Your task to perform on an android device: check battery use Image 0: 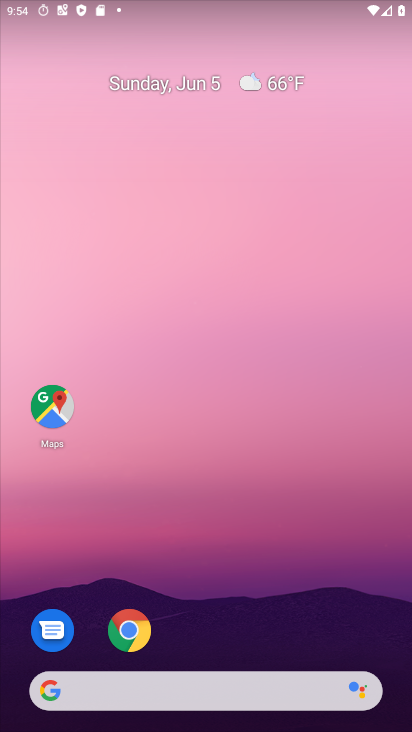
Step 0: drag from (237, 729) to (237, 11)
Your task to perform on an android device: check battery use Image 1: 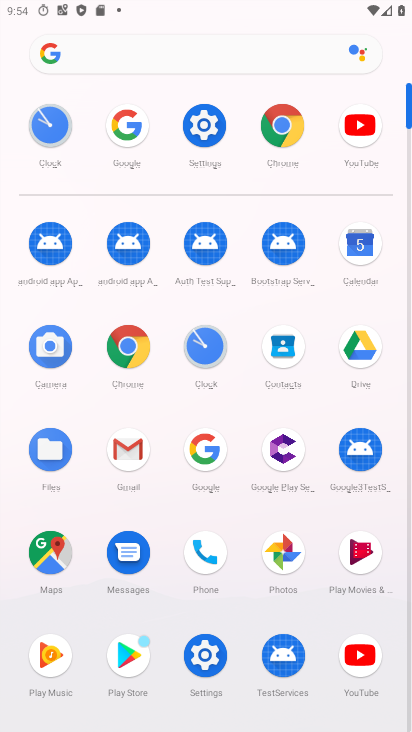
Step 1: click (195, 128)
Your task to perform on an android device: check battery use Image 2: 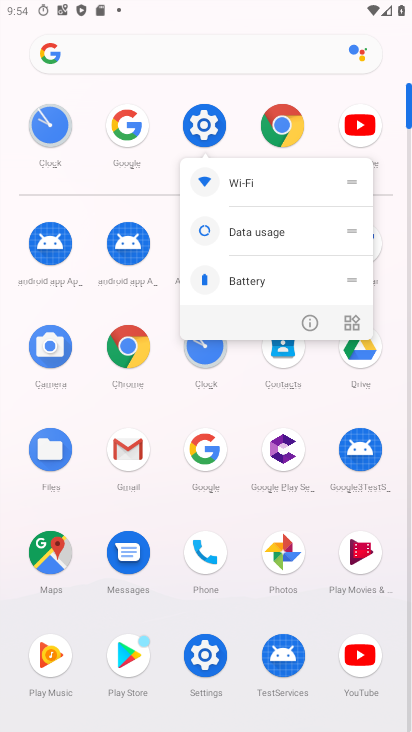
Step 2: click (197, 130)
Your task to perform on an android device: check battery use Image 3: 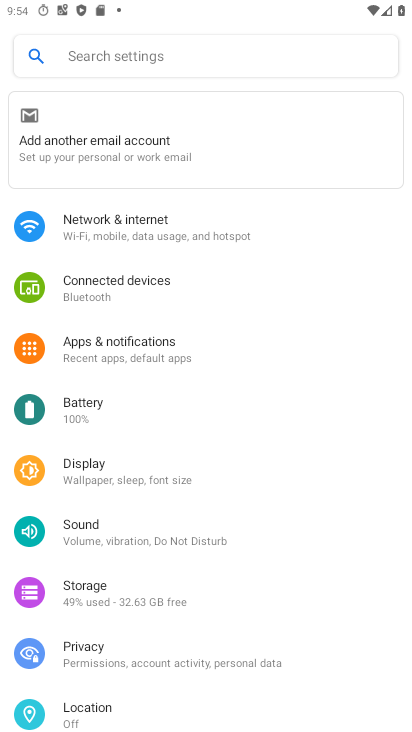
Step 3: click (80, 408)
Your task to perform on an android device: check battery use Image 4: 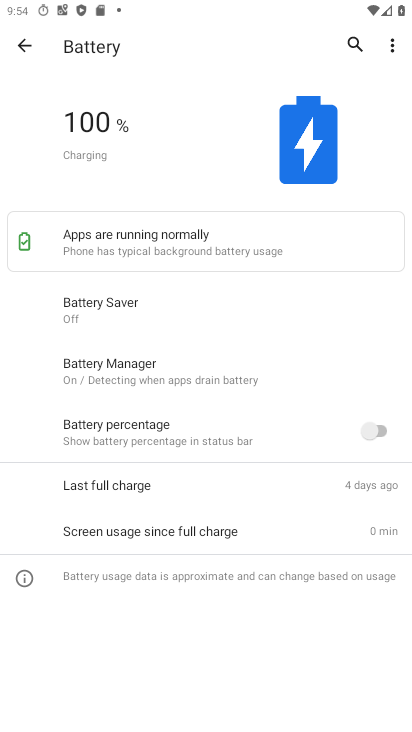
Step 4: click (392, 48)
Your task to perform on an android device: check battery use Image 5: 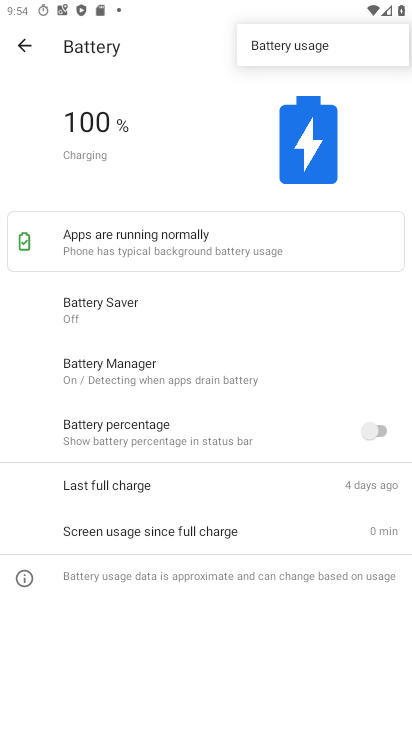
Step 5: click (274, 44)
Your task to perform on an android device: check battery use Image 6: 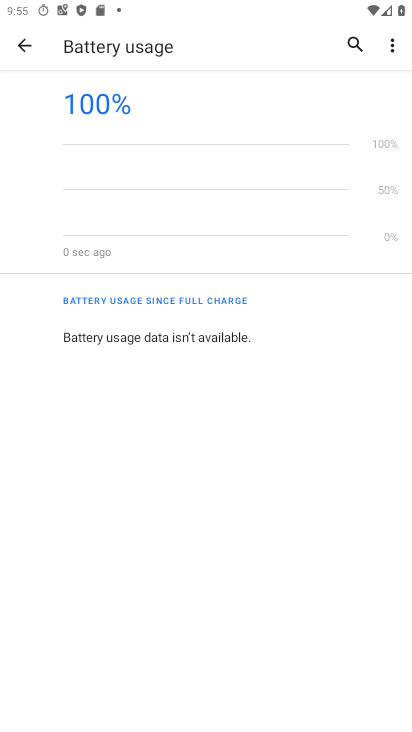
Step 6: task complete